Your task to perform on an android device: delete a single message in the gmail app Image 0: 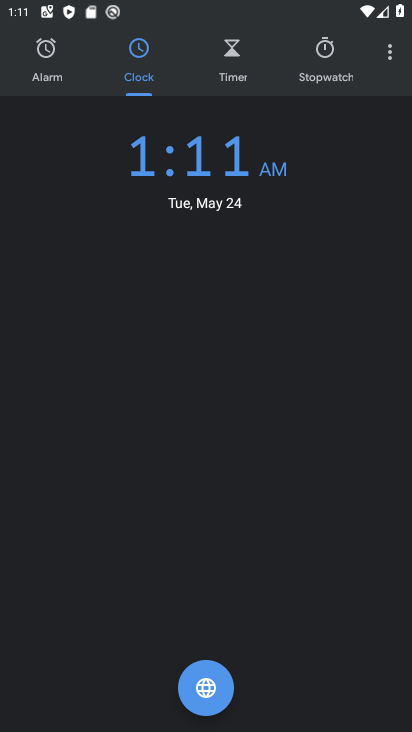
Step 0: press home button
Your task to perform on an android device: delete a single message in the gmail app Image 1: 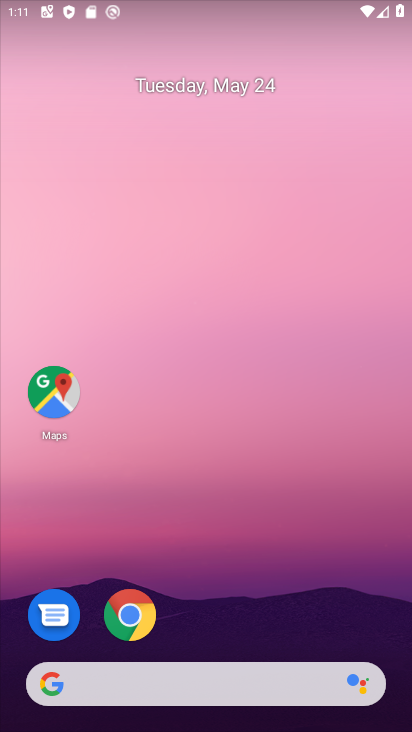
Step 1: drag from (205, 646) to (232, 74)
Your task to perform on an android device: delete a single message in the gmail app Image 2: 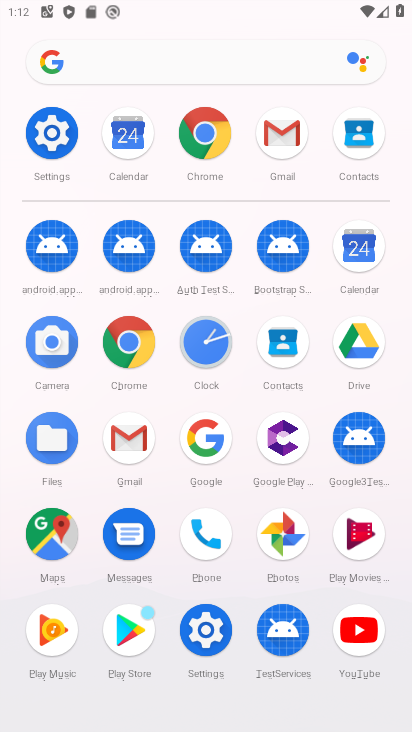
Step 2: click (128, 427)
Your task to perform on an android device: delete a single message in the gmail app Image 3: 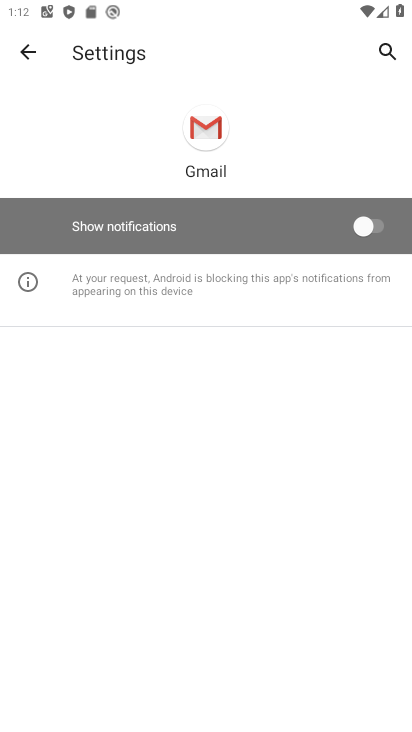
Step 3: click (27, 59)
Your task to perform on an android device: delete a single message in the gmail app Image 4: 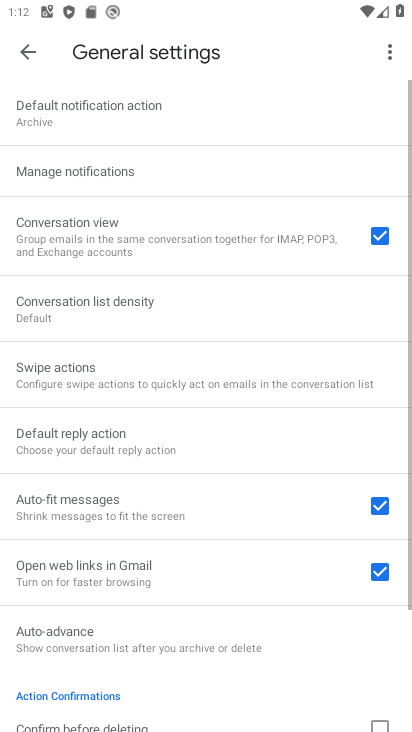
Step 4: click (31, 53)
Your task to perform on an android device: delete a single message in the gmail app Image 5: 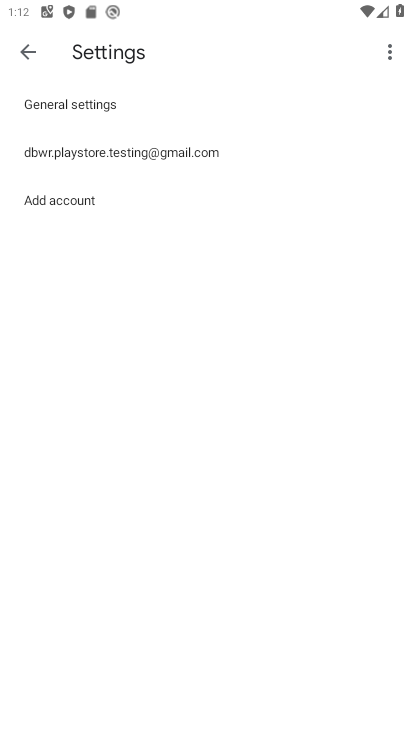
Step 5: click (30, 42)
Your task to perform on an android device: delete a single message in the gmail app Image 6: 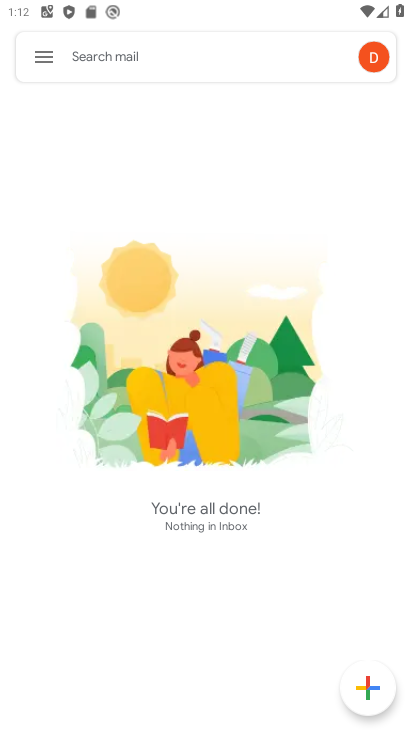
Step 6: click (40, 59)
Your task to perform on an android device: delete a single message in the gmail app Image 7: 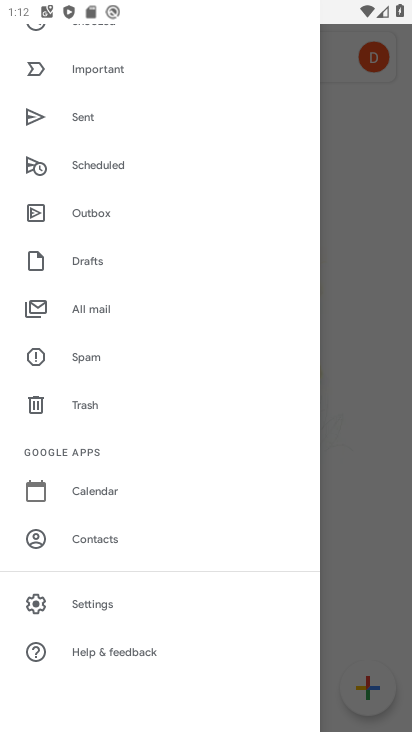
Step 7: task complete